Your task to perform on an android device: When is my next appointment? Image 0: 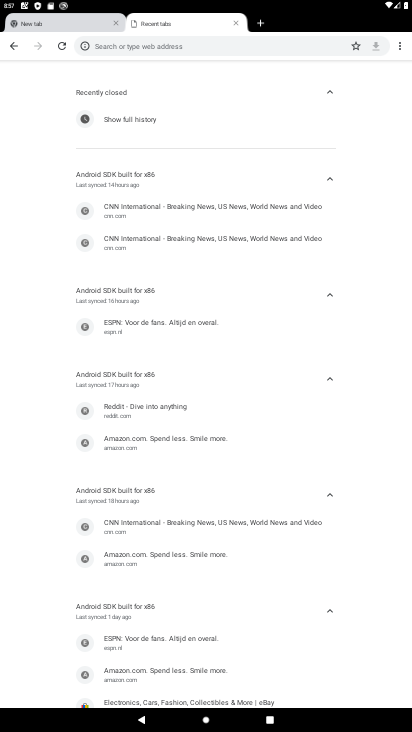
Step 0: press home button
Your task to perform on an android device: When is my next appointment? Image 1: 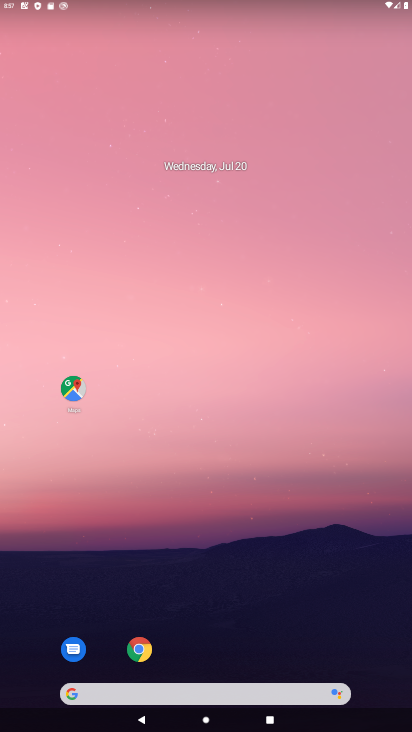
Step 1: task complete